Your task to perform on an android device: open a bookmark in the chrome app Image 0: 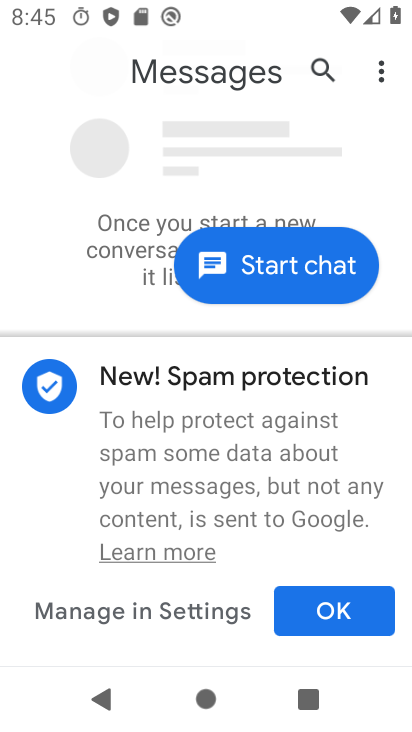
Step 0: press home button
Your task to perform on an android device: open a bookmark in the chrome app Image 1: 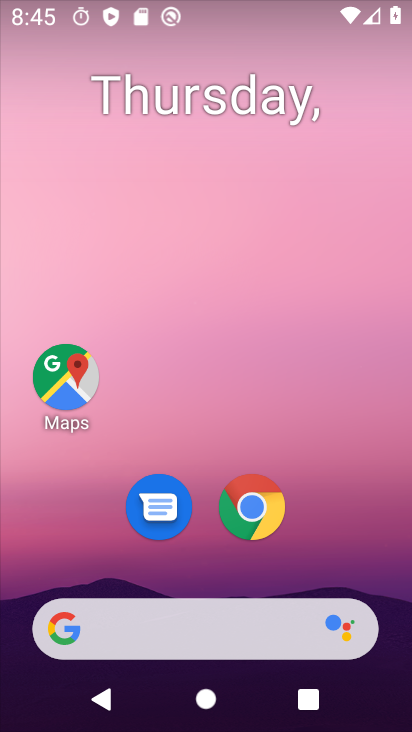
Step 1: click (252, 510)
Your task to perform on an android device: open a bookmark in the chrome app Image 2: 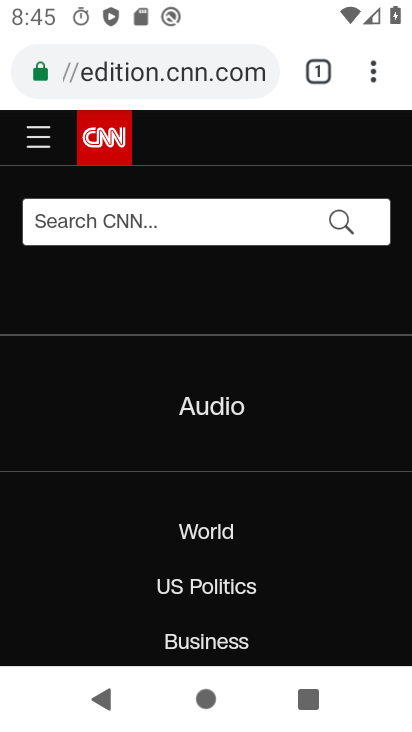
Step 2: click (371, 66)
Your task to perform on an android device: open a bookmark in the chrome app Image 3: 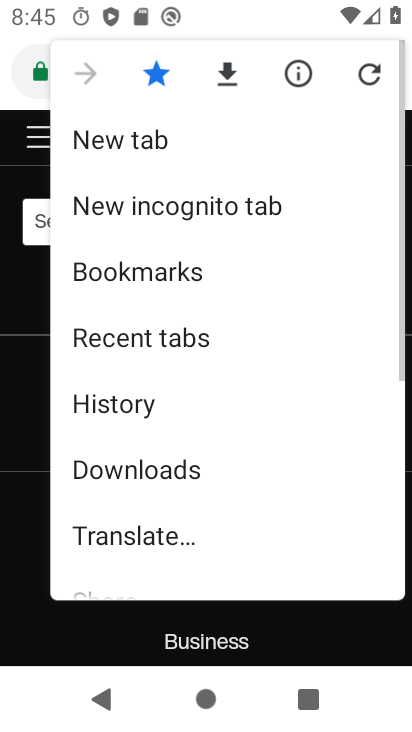
Step 3: click (159, 271)
Your task to perform on an android device: open a bookmark in the chrome app Image 4: 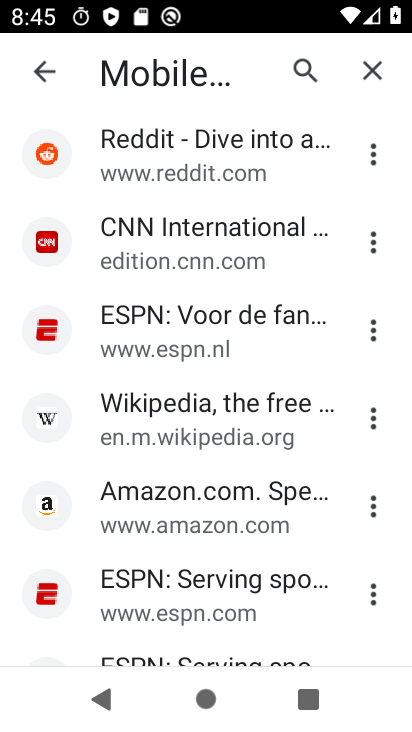
Step 4: click (167, 308)
Your task to perform on an android device: open a bookmark in the chrome app Image 5: 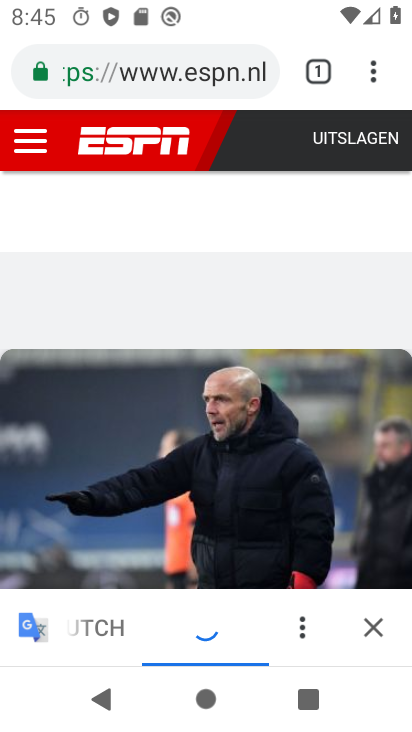
Step 5: task complete